Your task to perform on an android device: turn pop-ups off in chrome Image 0: 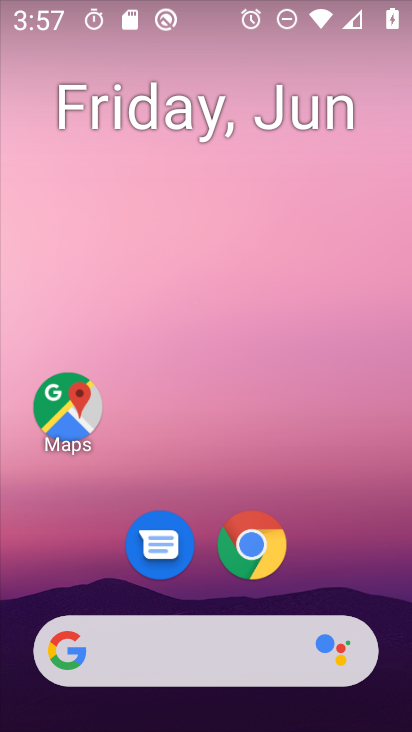
Step 0: click (266, 529)
Your task to perform on an android device: turn pop-ups off in chrome Image 1: 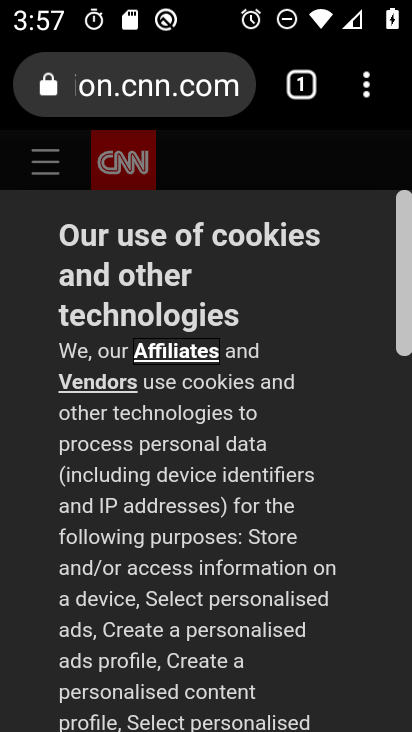
Step 1: click (361, 74)
Your task to perform on an android device: turn pop-ups off in chrome Image 2: 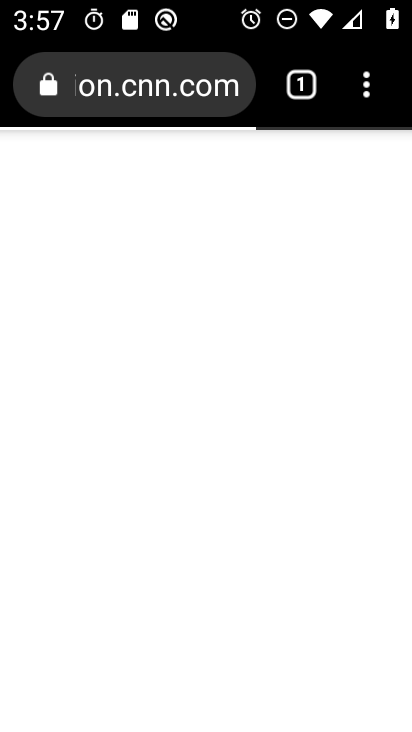
Step 2: click (360, 76)
Your task to perform on an android device: turn pop-ups off in chrome Image 3: 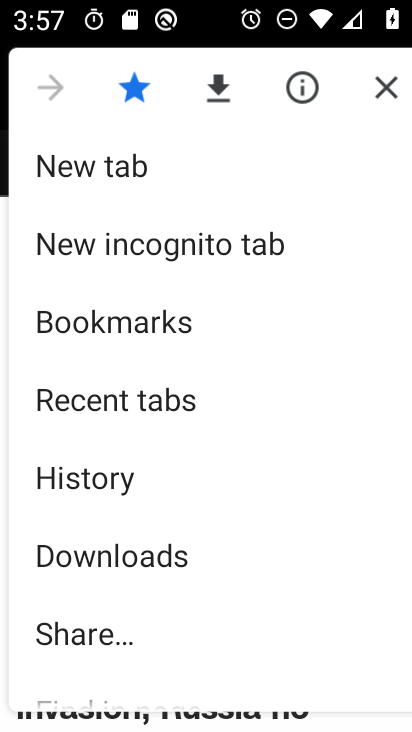
Step 3: drag from (212, 618) to (196, 220)
Your task to perform on an android device: turn pop-ups off in chrome Image 4: 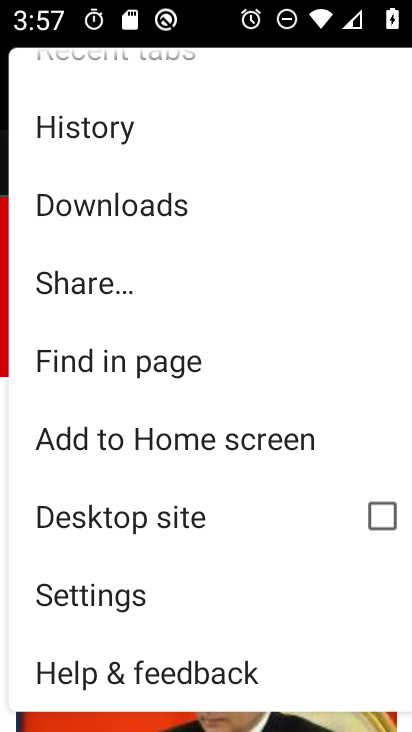
Step 4: click (184, 610)
Your task to perform on an android device: turn pop-ups off in chrome Image 5: 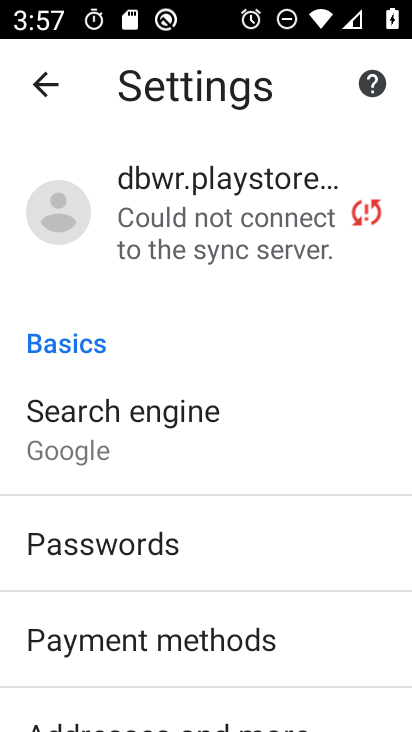
Step 5: drag from (238, 646) to (175, 175)
Your task to perform on an android device: turn pop-ups off in chrome Image 6: 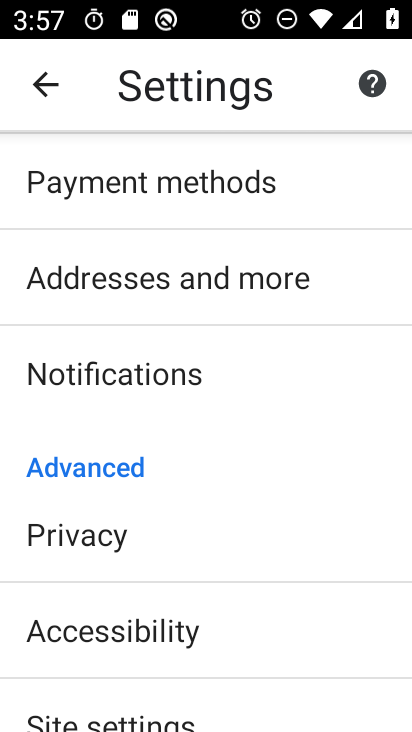
Step 6: click (162, 700)
Your task to perform on an android device: turn pop-ups off in chrome Image 7: 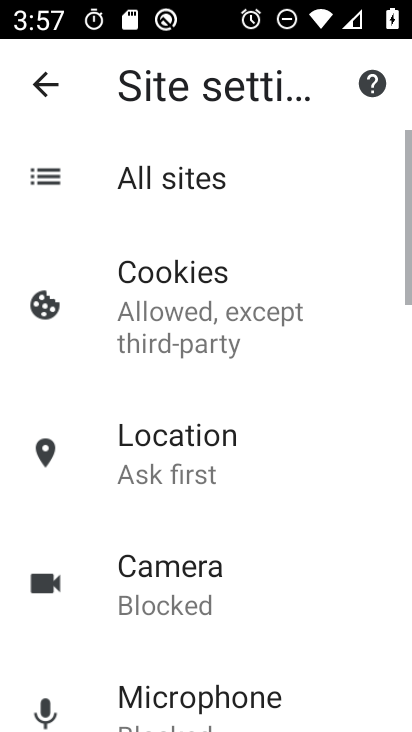
Step 7: drag from (140, 617) to (142, 234)
Your task to perform on an android device: turn pop-ups off in chrome Image 8: 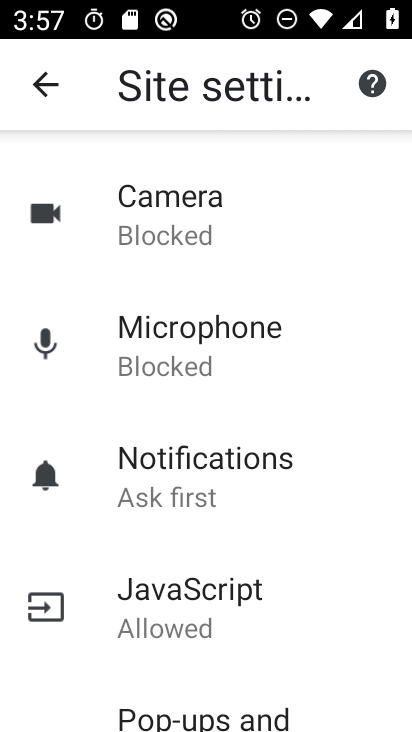
Step 8: click (207, 703)
Your task to perform on an android device: turn pop-ups off in chrome Image 9: 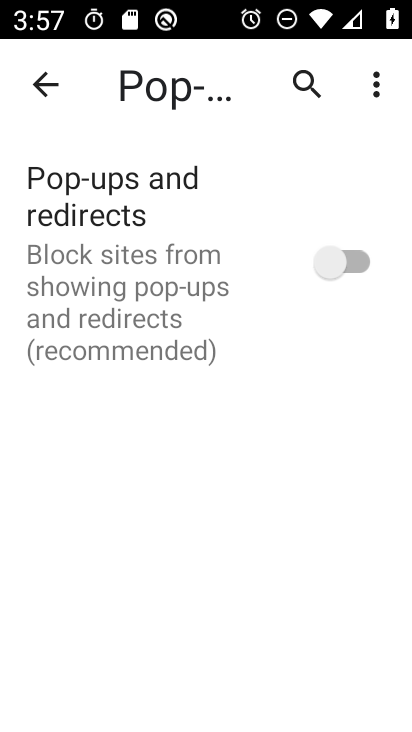
Step 9: click (348, 257)
Your task to perform on an android device: turn pop-ups off in chrome Image 10: 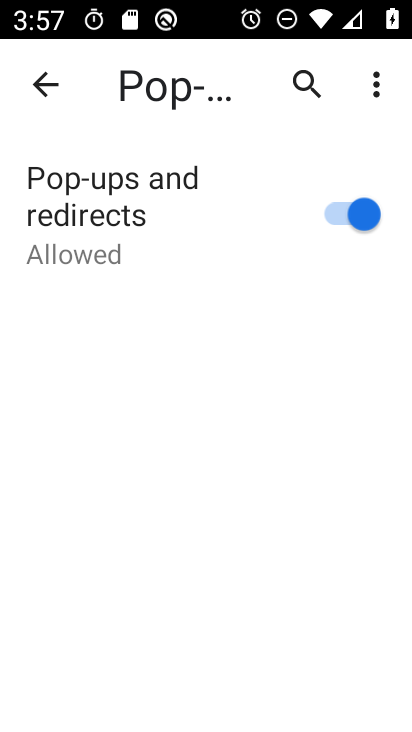
Step 10: click (348, 257)
Your task to perform on an android device: turn pop-ups off in chrome Image 11: 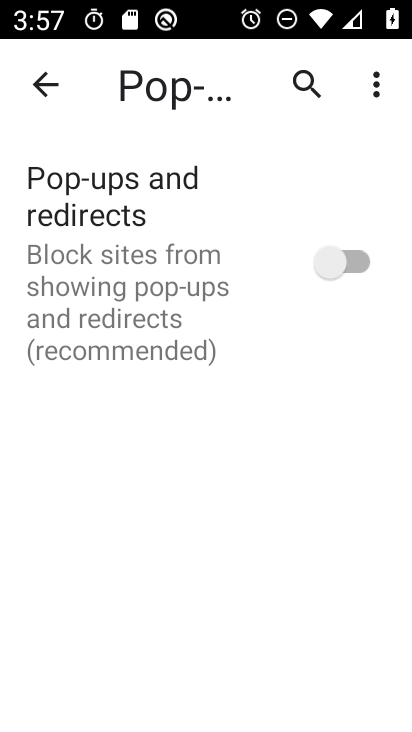
Step 11: task complete